Your task to perform on an android device: Open Chrome and go to settings Image 0: 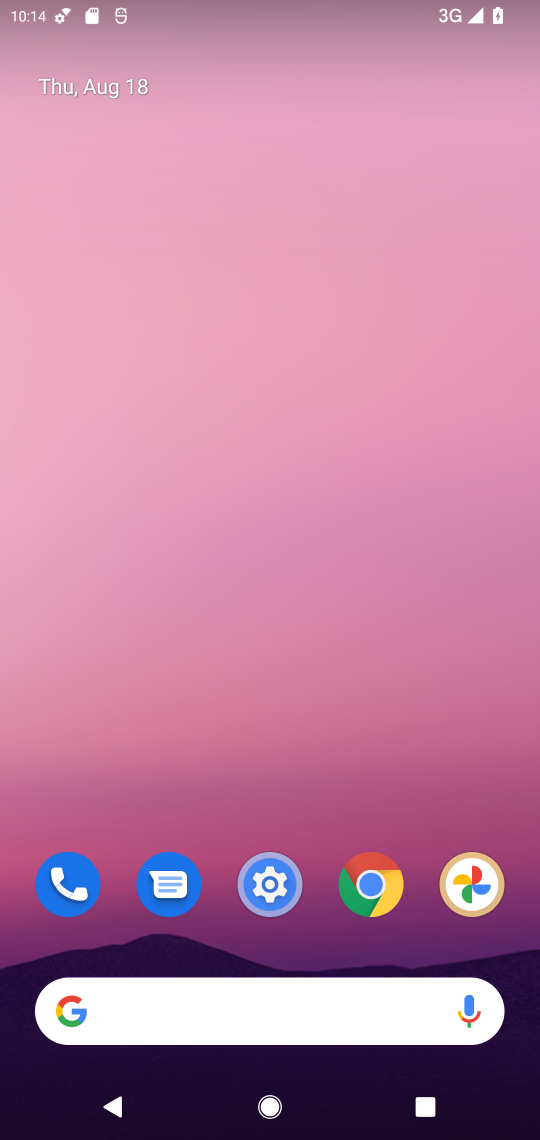
Step 0: click (365, 889)
Your task to perform on an android device: Open Chrome and go to settings Image 1: 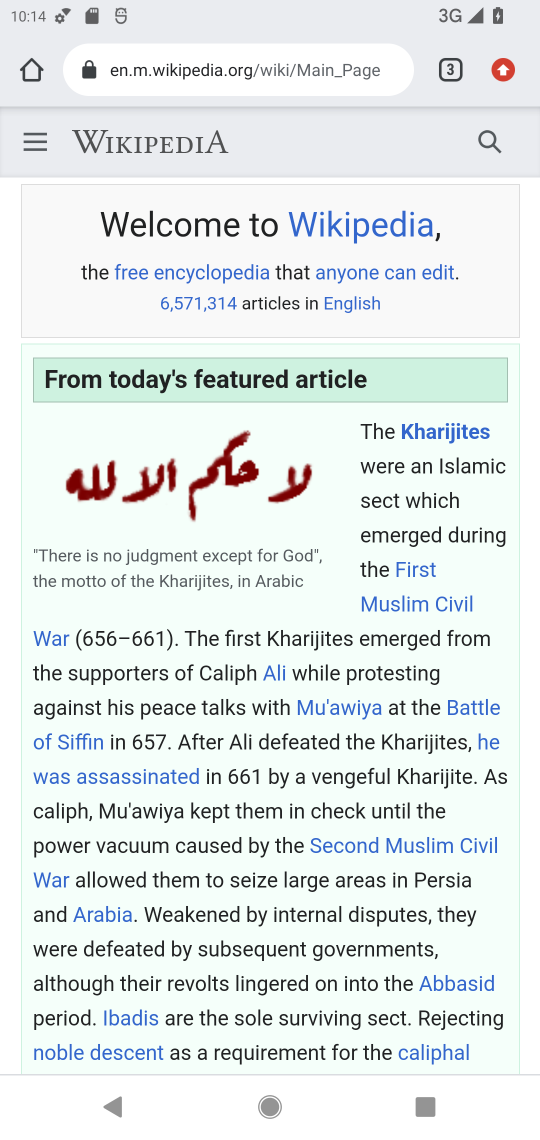
Step 1: click (503, 68)
Your task to perform on an android device: Open Chrome and go to settings Image 2: 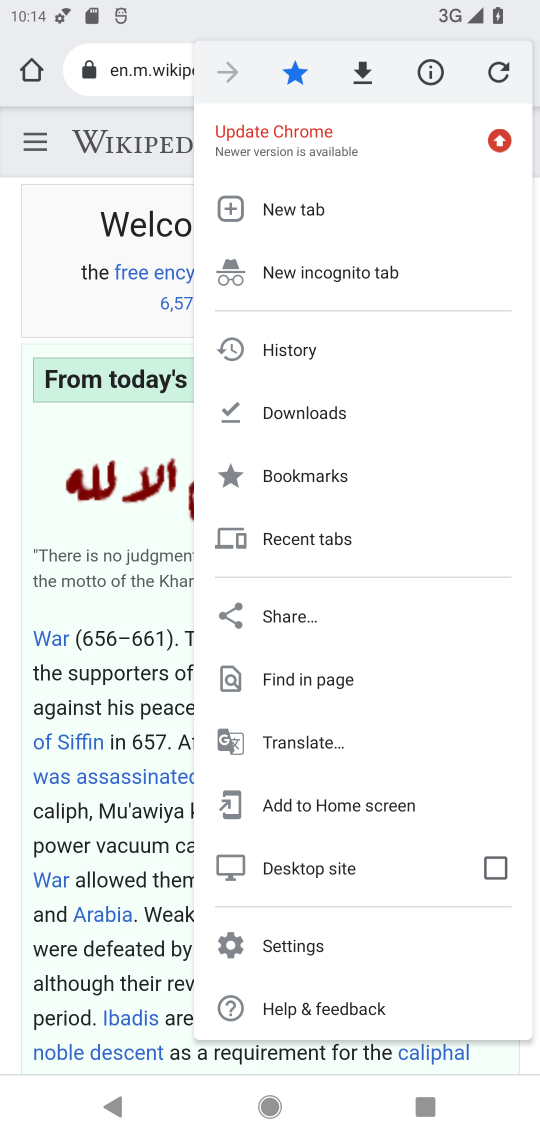
Step 2: click (304, 954)
Your task to perform on an android device: Open Chrome and go to settings Image 3: 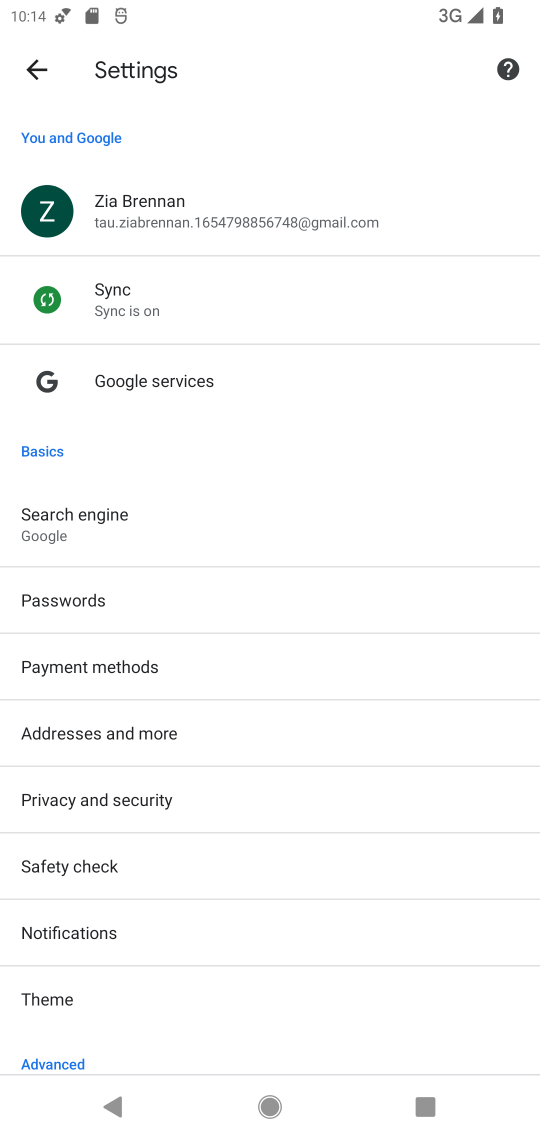
Step 3: task complete